Your task to perform on an android device: turn off javascript in the chrome app Image 0: 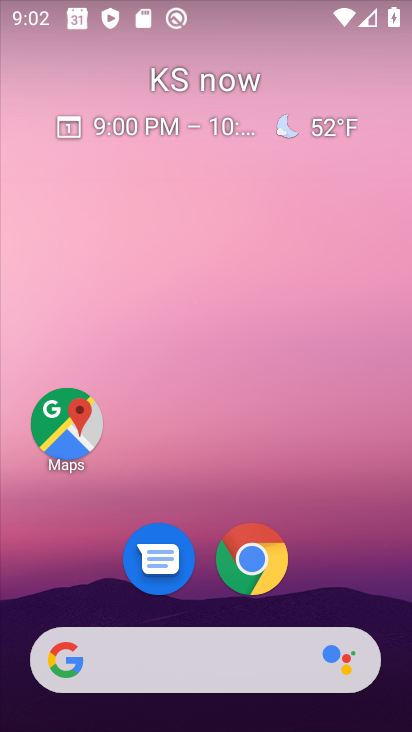
Step 0: drag from (353, 517) to (202, 2)
Your task to perform on an android device: turn off javascript in the chrome app Image 1: 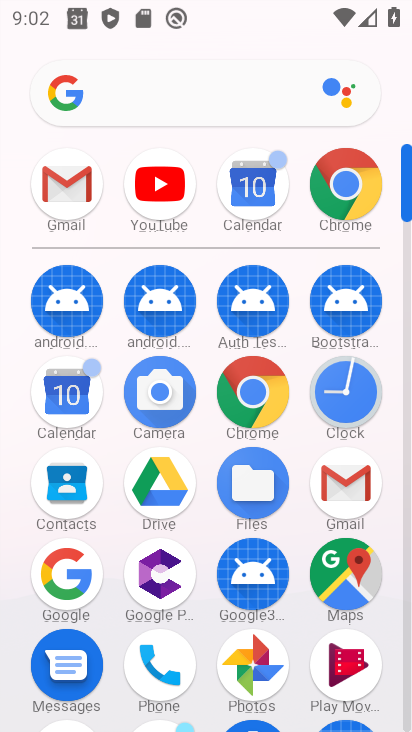
Step 1: drag from (13, 570) to (0, 268)
Your task to perform on an android device: turn off javascript in the chrome app Image 2: 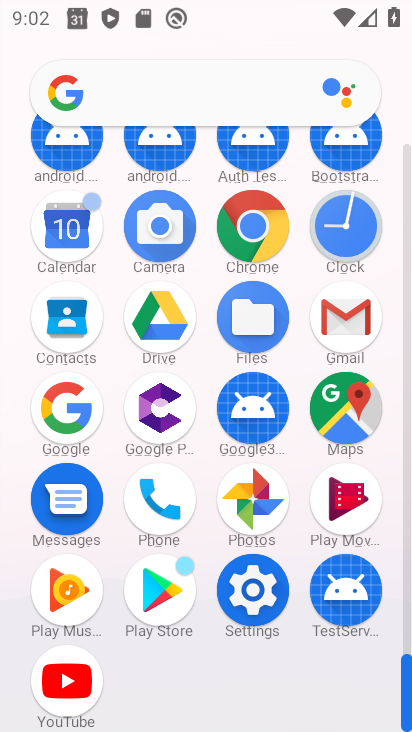
Step 2: drag from (7, 655) to (20, 331)
Your task to perform on an android device: turn off javascript in the chrome app Image 3: 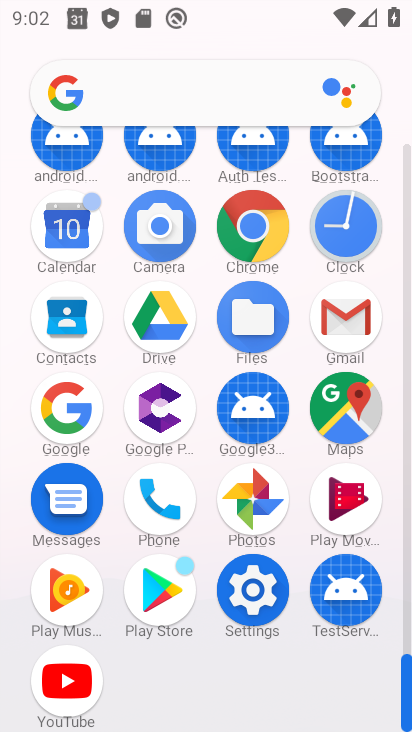
Step 3: click (10, 246)
Your task to perform on an android device: turn off javascript in the chrome app Image 4: 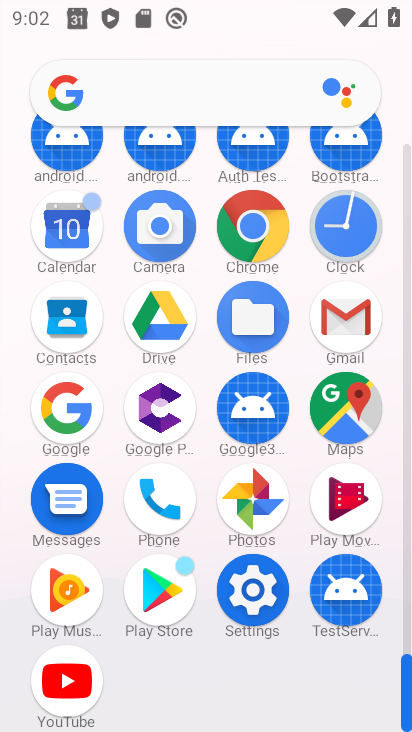
Step 4: click (250, 224)
Your task to perform on an android device: turn off javascript in the chrome app Image 5: 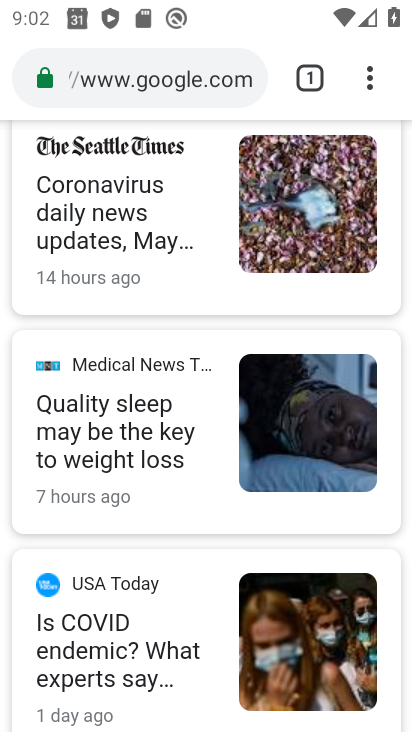
Step 5: drag from (367, 83) to (144, 604)
Your task to perform on an android device: turn off javascript in the chrome app Image 6: 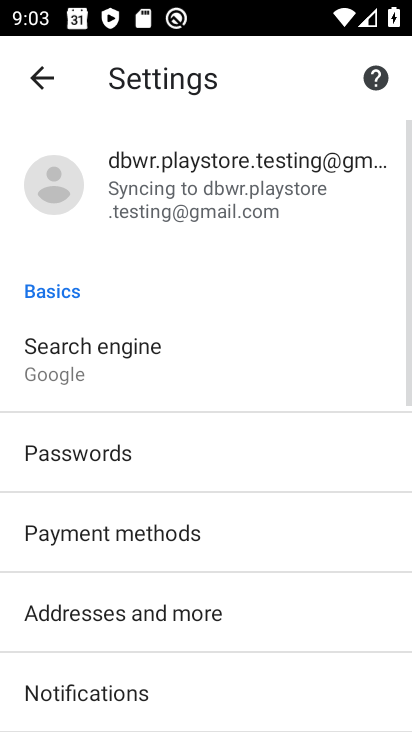
Step 6: drag from (281, 588) to (290, 167)
Your task to perform on an android device: turn off javascript in the chrome app Image 7: 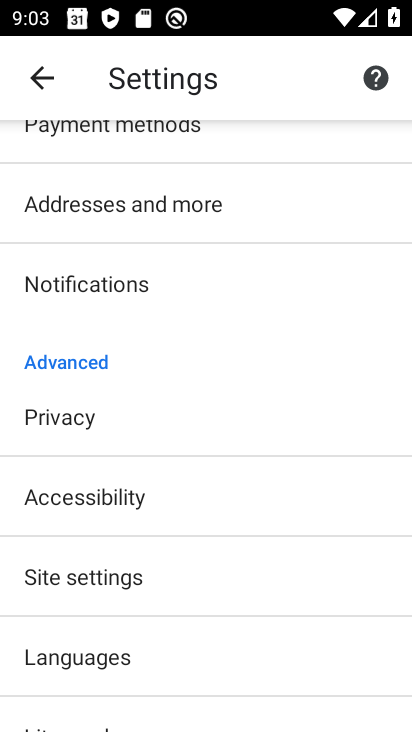
Step 7: drag from (193, 656) to (219, 257)
Your task to perform on an android device: turn off javascript in the chrome app Image 8: 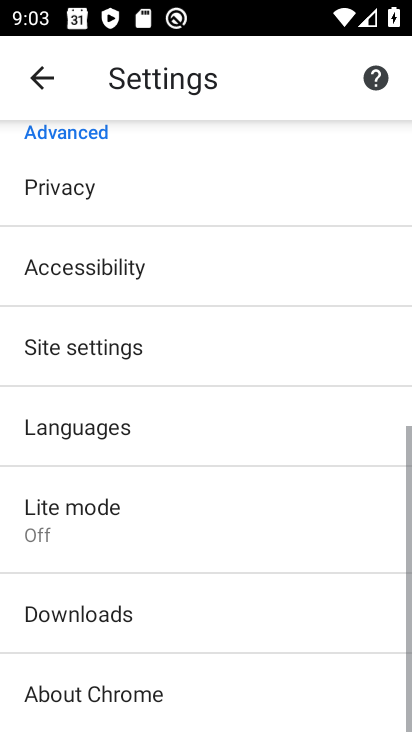
Step 8: click (137, 327)
Your task to perform on an android device: turn off javascript in the chrome app Image 9: 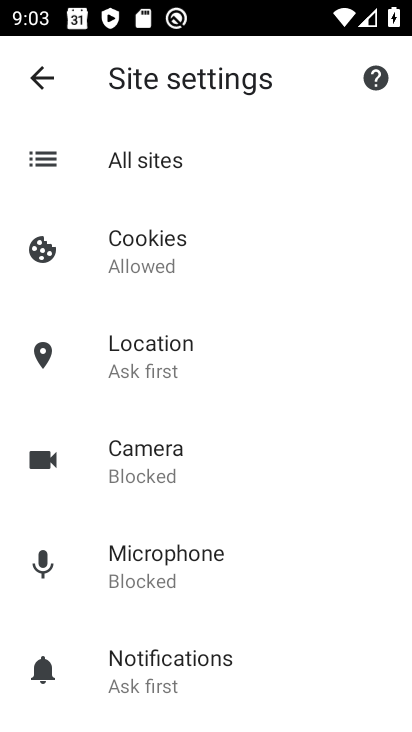
Step 9: drag from (245, 601) to (300, 257)
Your task to perform on an android device: turn off javascript in the chrome app Image 10: 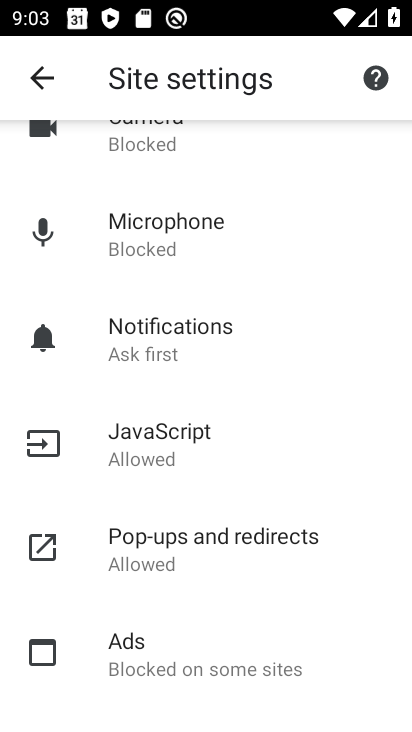
Step 10: click (208, 438)
Your task to perform on an android device: turn off javascript in the chrome app Image 11: 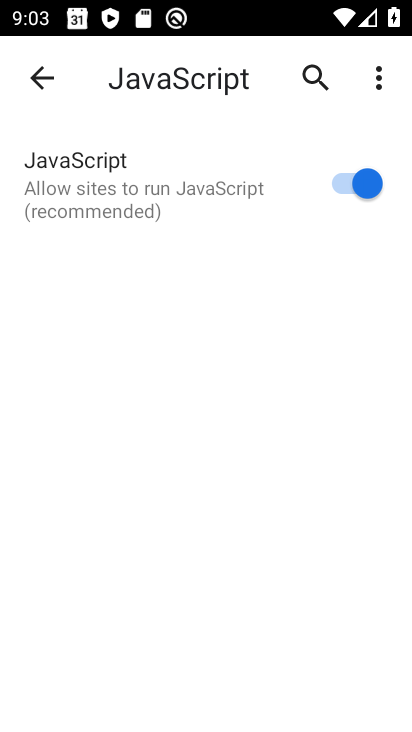
Step 11: click (326, 179)
Your task to perform on an android device: turn off javascript in the chrome app Image 12: 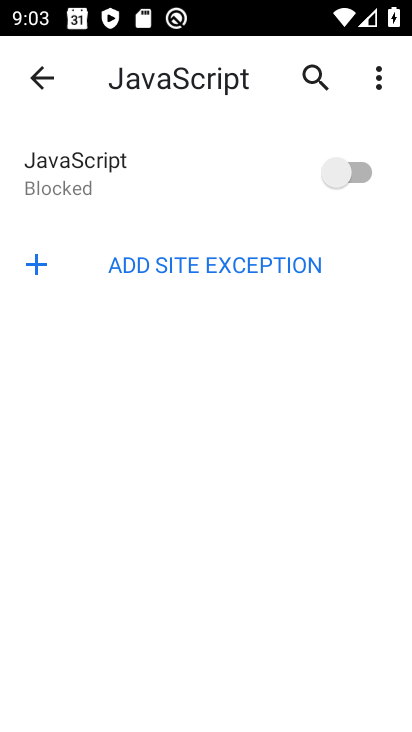
Step 12: task complete